Your task to perform on an android device: read, delete, or share a saved page in the chrome app Image 0: 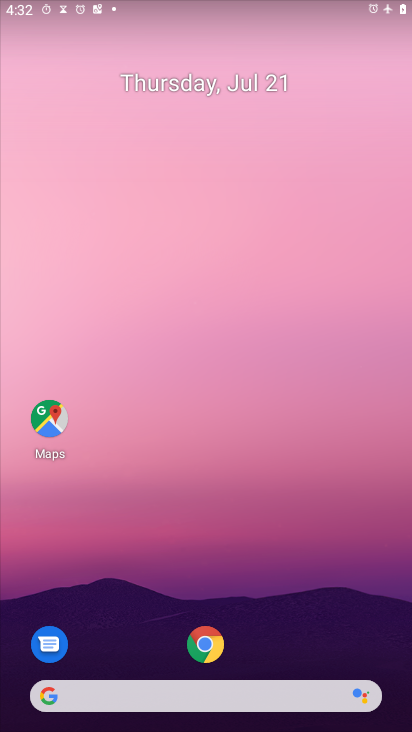
Step 0: press home button
Your task to perform on an android device: read, delete, or share a saved page in the chrome app Image 1: 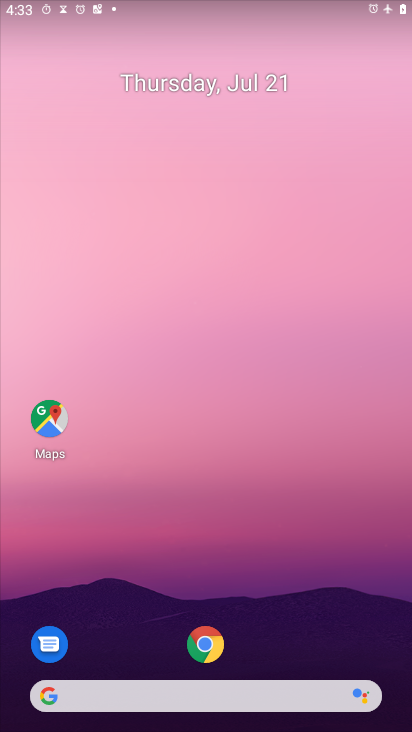
Step 1: drag from (243, 660) to (226, 79)
Your task to perform on an android device: read, delete, or share a saved page in the chrome app Image 2: 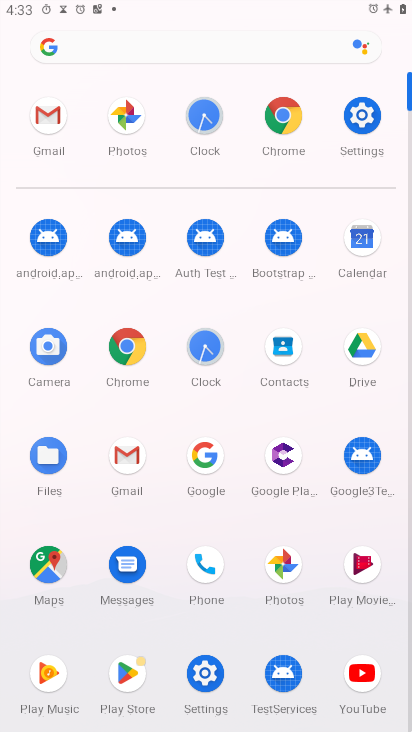
Step 2: click (283, 123)
Your task to perform on an android device: read, delete, or share a saved page in the chrome app Image 3: 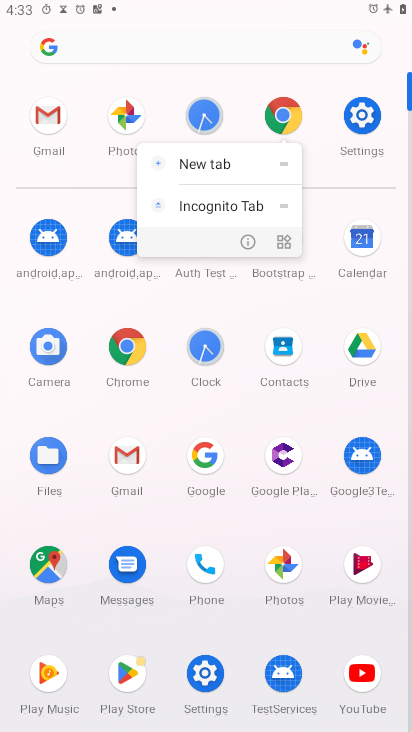
Step 3: click (282, 113)
Your task to perform on an android device: read, delete, or share a saved page in the chrome app Image 4: 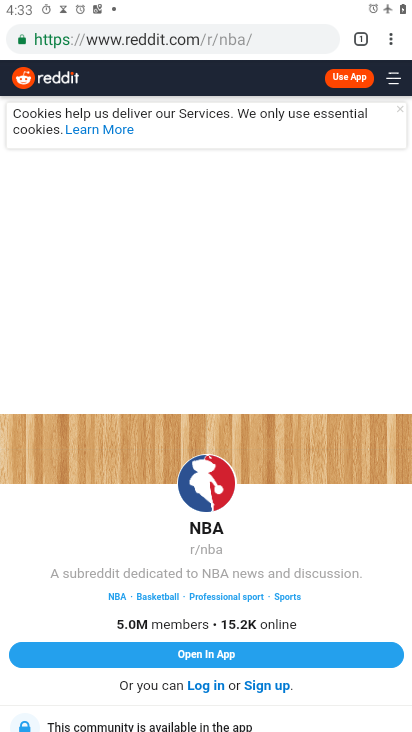
Step 4: drag from (398, 36) to (260, 316)
Your task to perform on an android device: read, delete, or share a saved page in the chrome app Image 5: 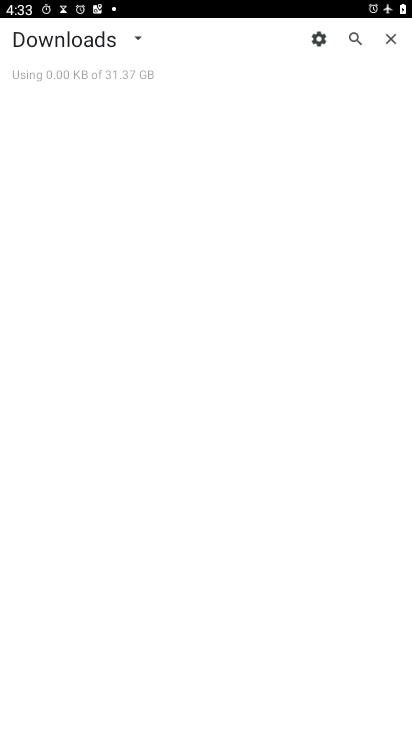
Step 5: click (140, 31)
Your task to perform on an android device: read, delete, or share a saved page in the chrome app Image 6: 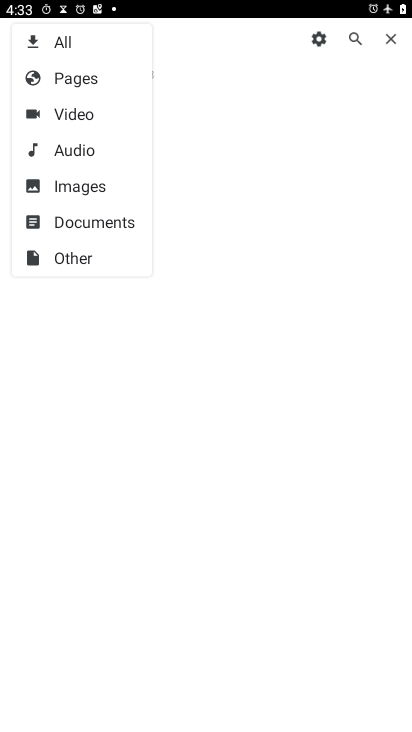
Step 6: click (79, 82)
Your task to perform on an android device: read, delete, or share a saved page in the chrome app Image 7: 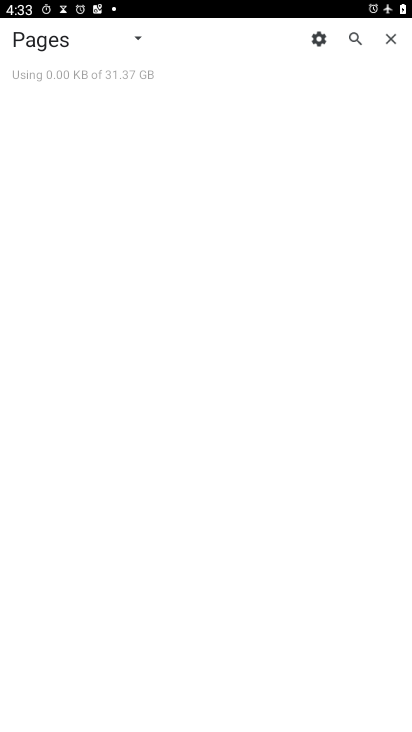
Step 7: task complete